Your task to perform on an android device: When is my next appointment? Image 0: 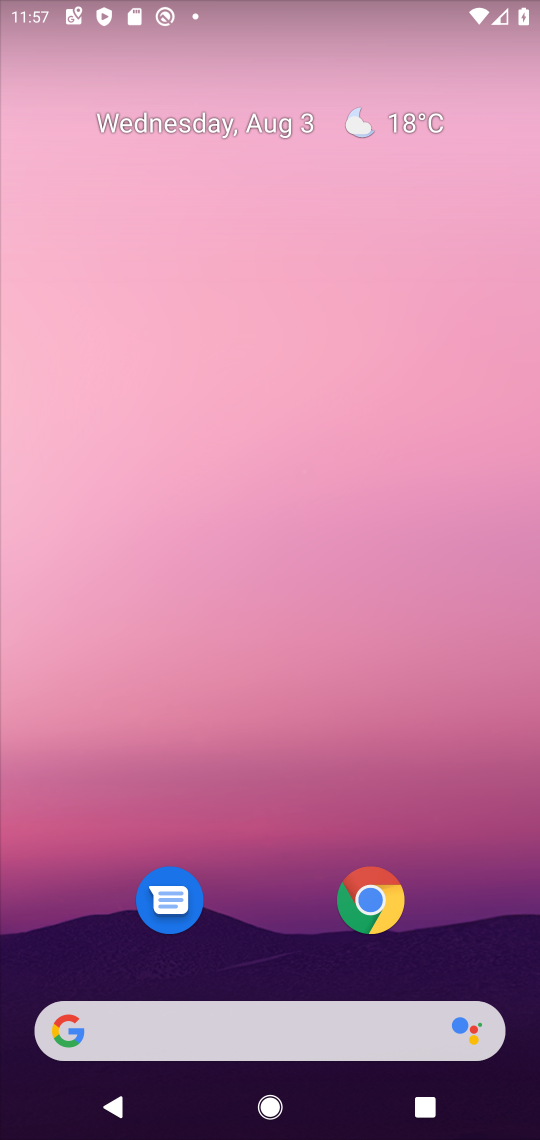
Step 0: press home button
Your task to perform on an android device: When is my next appointment? Image 1: 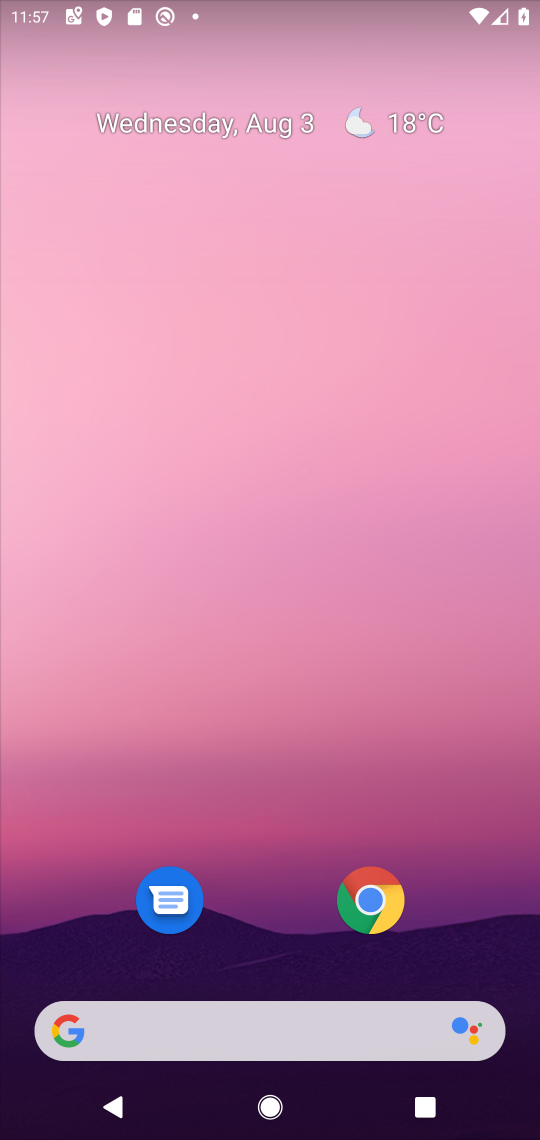
Step 1: drag from (267, 819) to (247, 268)
Your task to perform on an android device: When is my next appointment? Image 2: 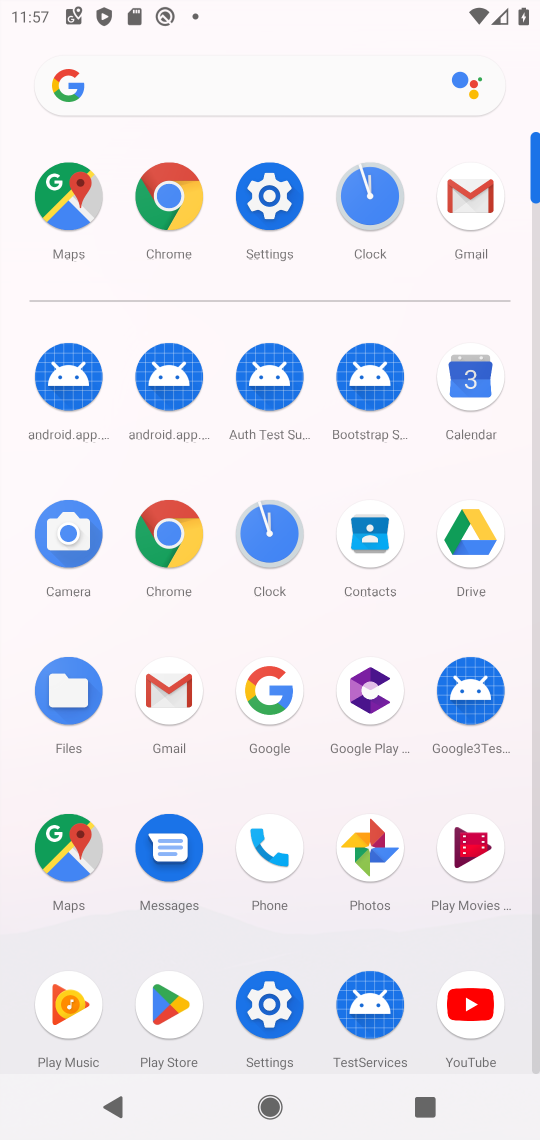
Step 2: click (475, 382)
Your task to perform on an android device: When is my next appointment? Image 3: 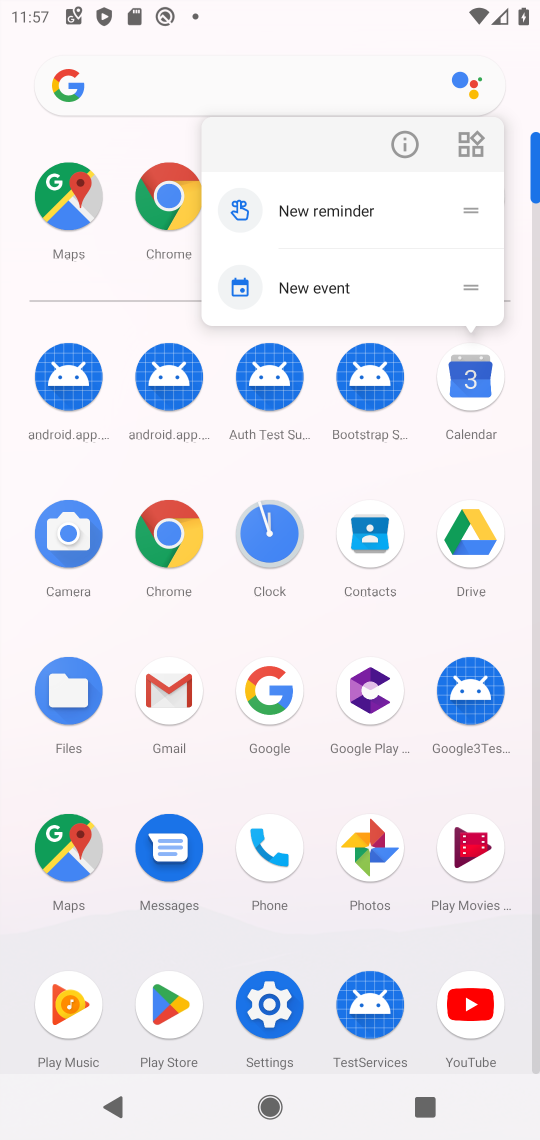
Step 3: click (474, 382)
Your task to perform on an android device: When is my next appointment? Image 4: 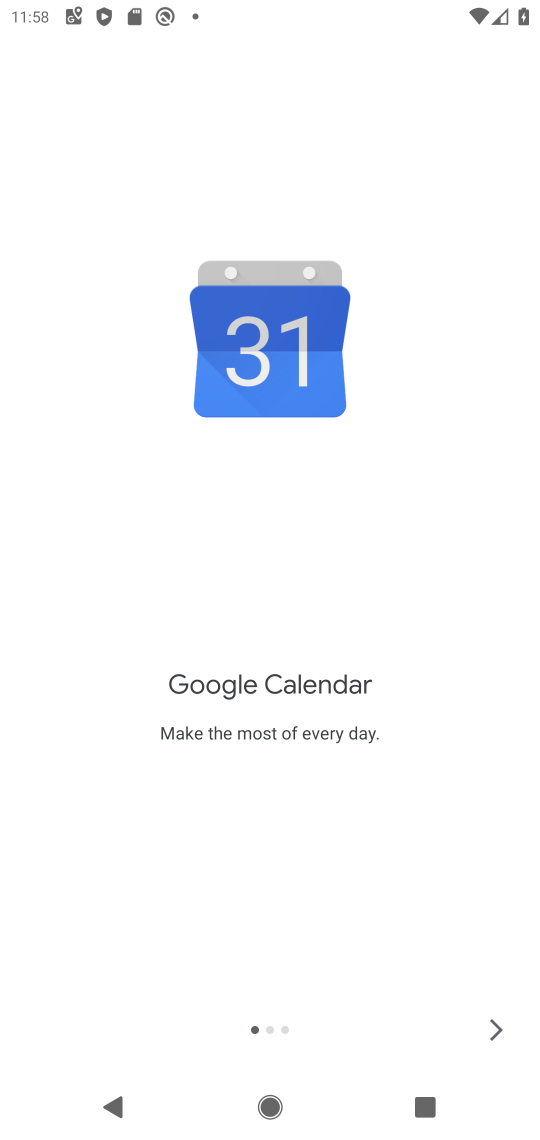
Step 4: click (484, 1025)
Your task to perform on an android device: When is my next appointment? Image 5: 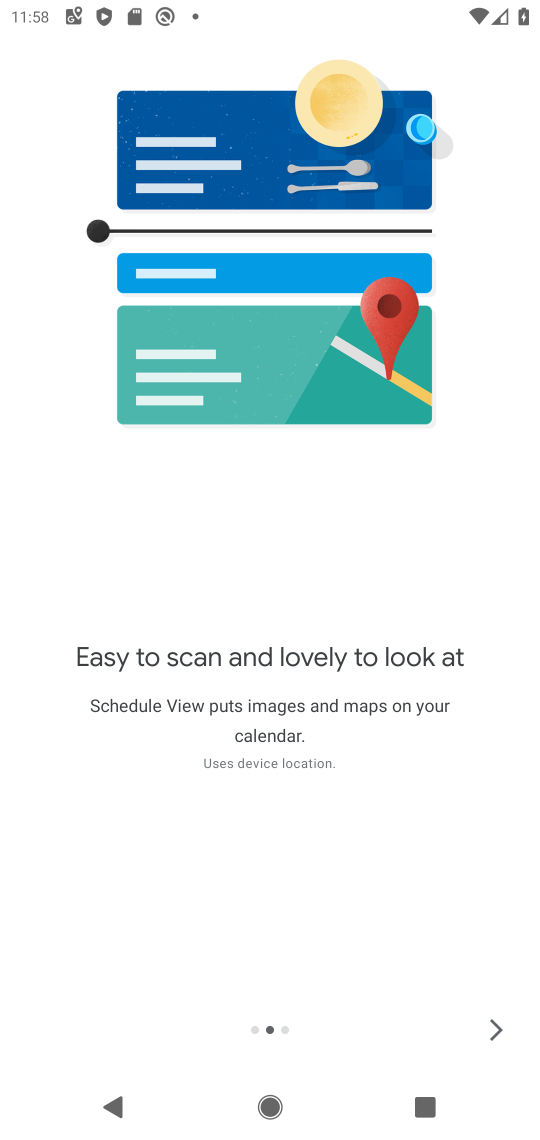
Step 5: click (484, 1025)
Your task to perform on an android device: When is my next appointment? Image 6: 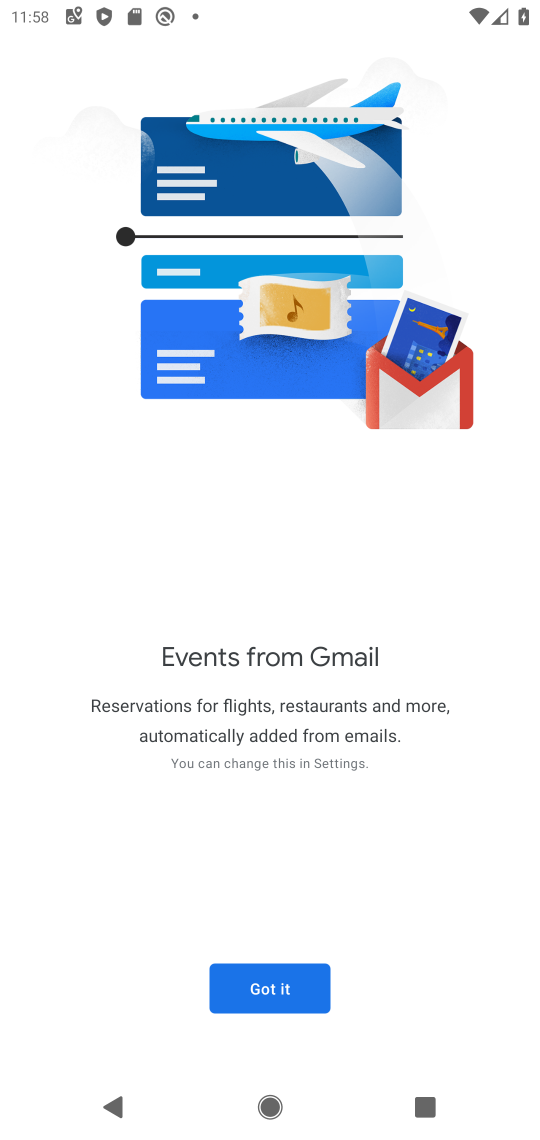
Step 6: click (301, 991)
Your task to perform on an android device: When is my next appointment? Image 7: 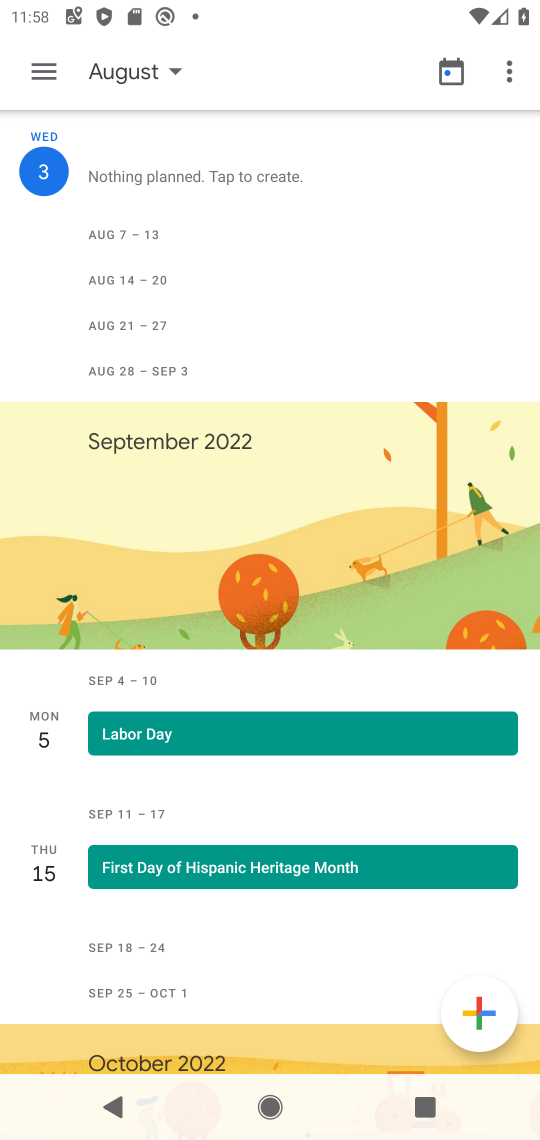
Step 7: click (45, 67)
Your task to perform on an android device: When is my next appointment? Image 8: 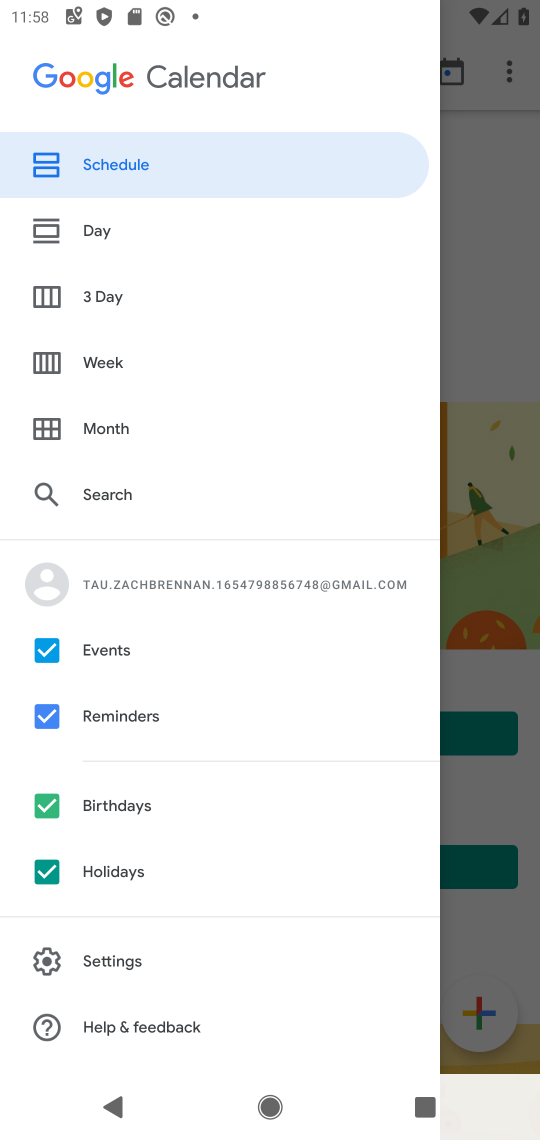
Step 8: click (116, 159)
Your task to perform on an android device: When is my next appointment? Image 9: 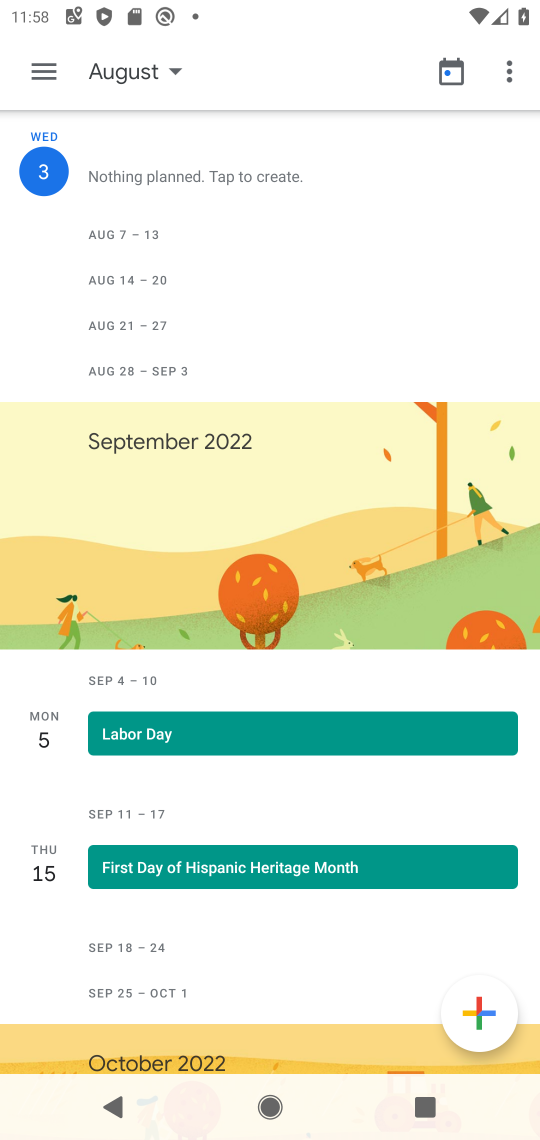
Step 9: task complete